Your task to perform on an android device: Open privacy settings Image 0: 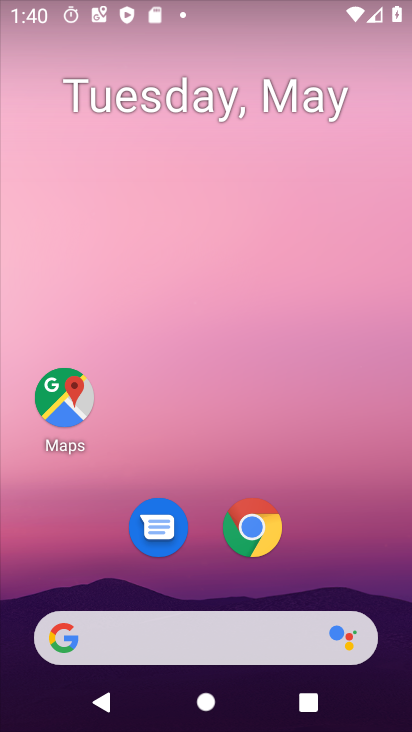
Step 0: press home button
Your task to perform on an android device: Open privacy settings Image 1: 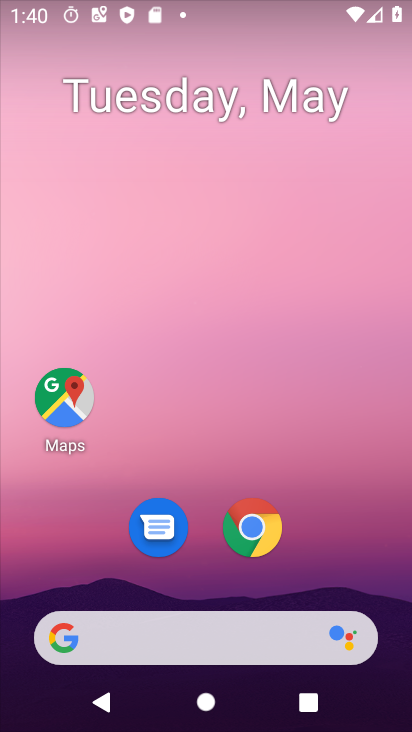
Step 1: drag from (265, 651) to (236, 133)
Your task to perform on an android device: Open privacy settings Image 2: 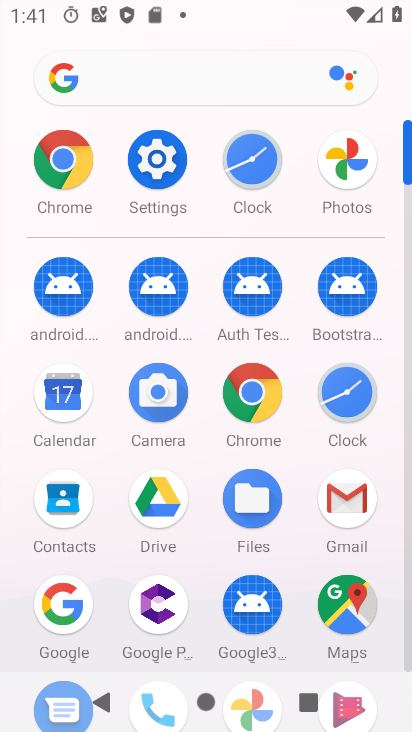
Step 2: click (169, 161)
Your task to perform on an android device: Open privacy settings Image 3: 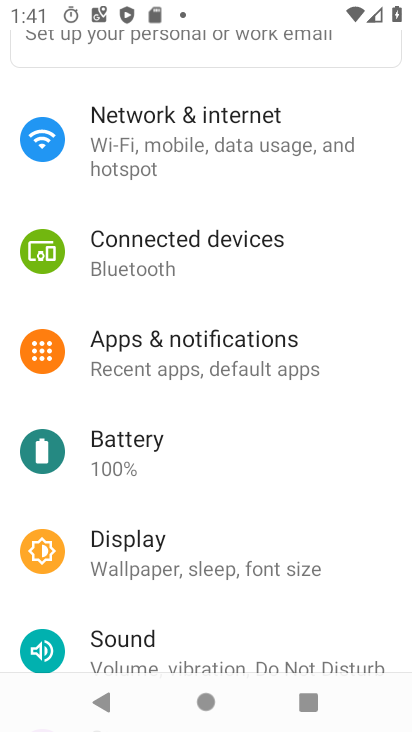
Step 3: drag from (159, 67) to (220, 346)
Your task to perform on an android device: Open privacy settings Image 4: 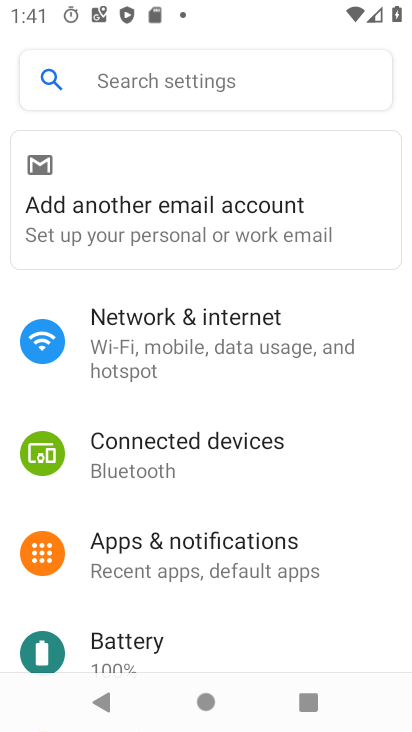
Step 4: click (140, 90)
Your task to perform on an android device: Open privacy settings Image 5: 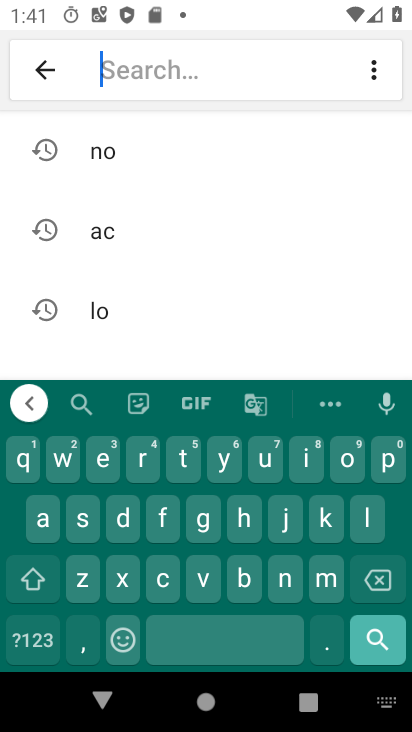
Step 5: click (383, 465)
Your task to perform on an android device: Open privacy settings Image 6: 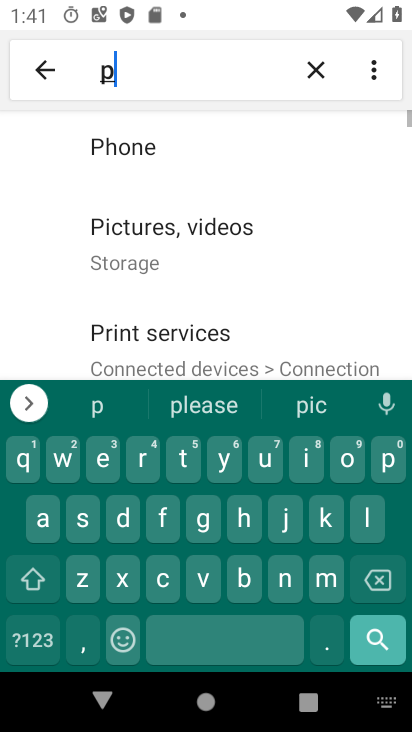
Step 6: click (138, 465)
Your task to perform on an android device: Open privacy settings Image 7: 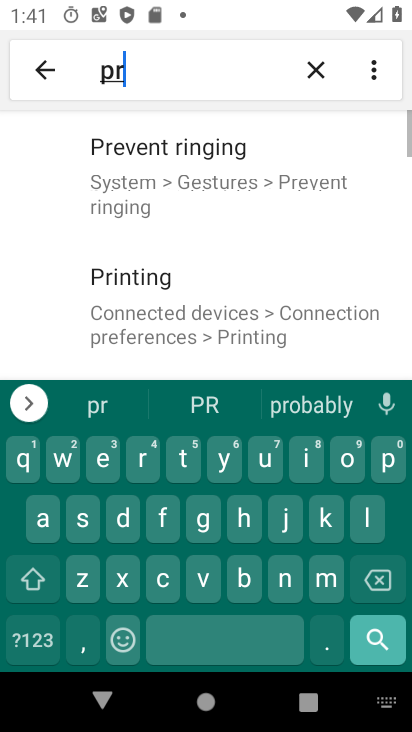
Step 7: click (309, 479)
Your task to perform on an android device: Open privacy settings Image 8: 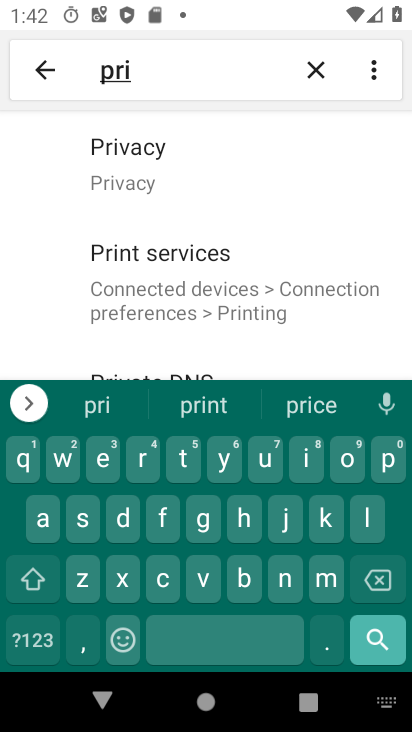
Step 8: click (136, 194)
Your task to perform on an android device: Open privacy settings Image 9: 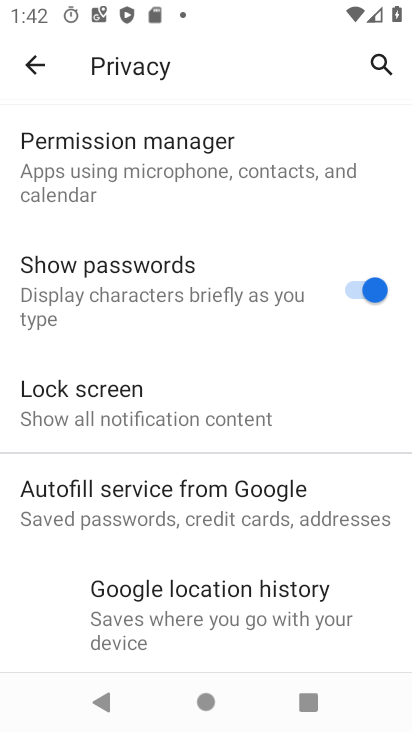
Step 9: task complete